Your task to perform on an android device: Go to location settings Image 0: 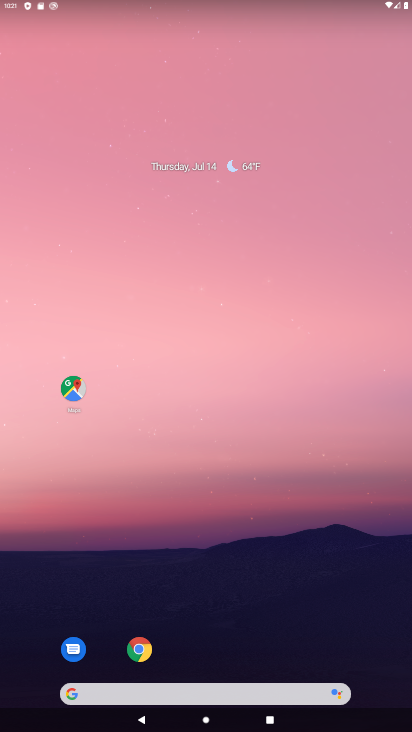
Step 0: drag from (321, 524) to (321, 146)
Your task to perform on an android device: Go to location settings Image 1: 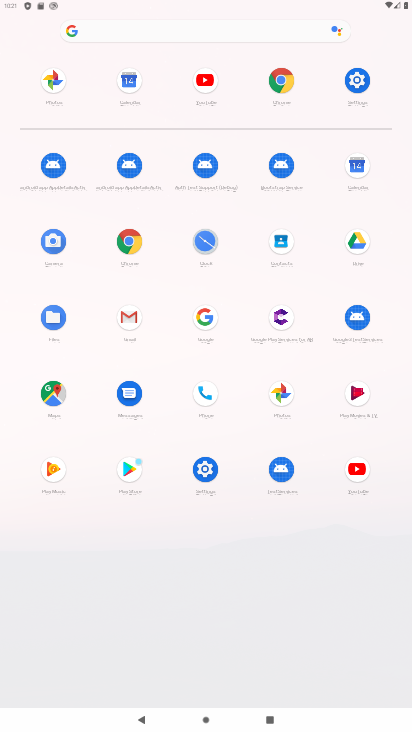
Step 1: click (207, 481)
Your task to perform on an android device: Go to location settings Image 2: 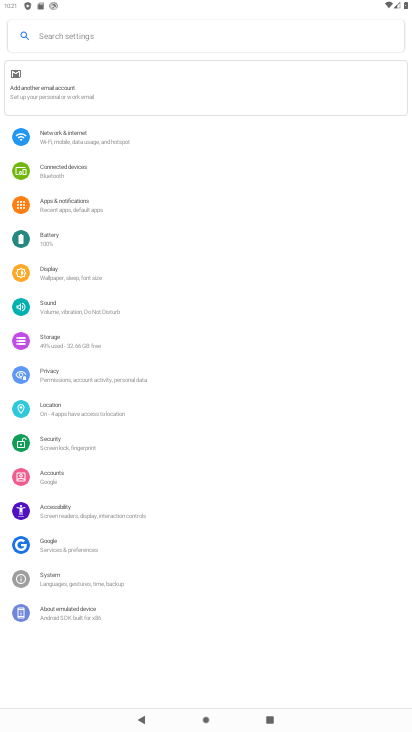
Step 2: click (49, 415)
Your task to perform on an android device: Go to location settings Image 3: 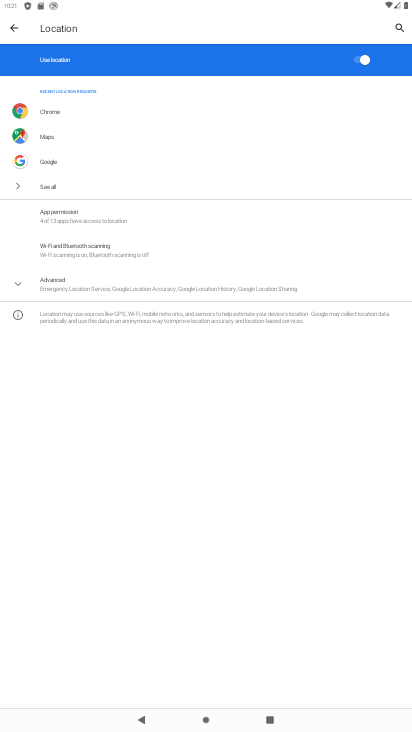
Step 3: task complete